Your task to perform on an android device: stop showing notifications on the lock screen Image 0: 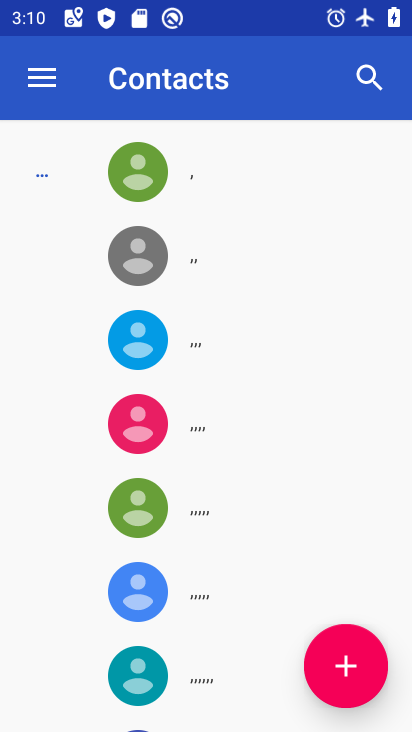
Step 0: press home button
Your task to perform on an android device: stop showing notifications on the lock screen Image 1: 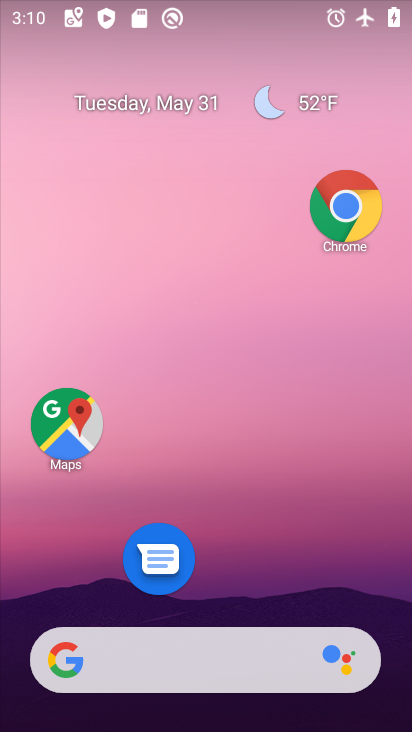
Step 1: drag from (321, 556) to (263, 139)
Your task to perform on an android device: stop showing notifications on the lock screen Image 2: 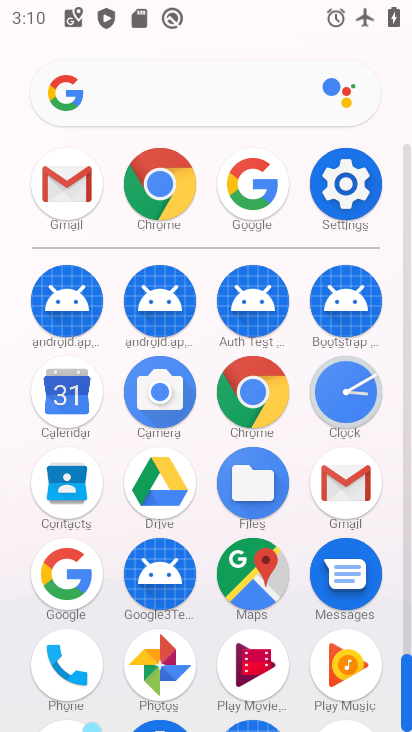
Step 2: drag from (214, 251) to (203, 91)
Your task to perform on an android device: stop showing notifications on the lock screen Image 3: 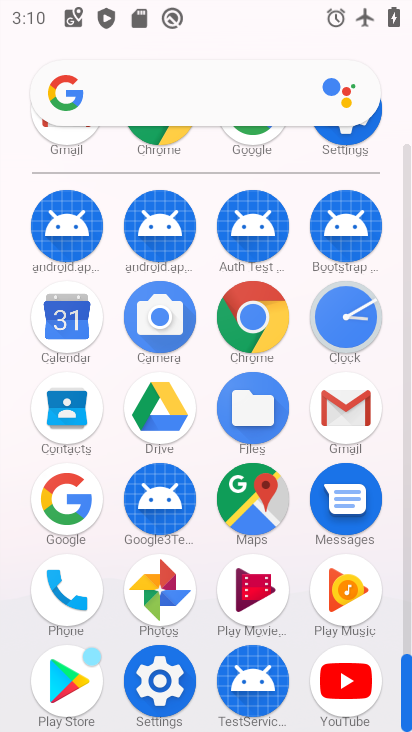
Step 3: click (151, 691)
Your task to perform on an android device: stop showing notifications on the lock screen Image 4: 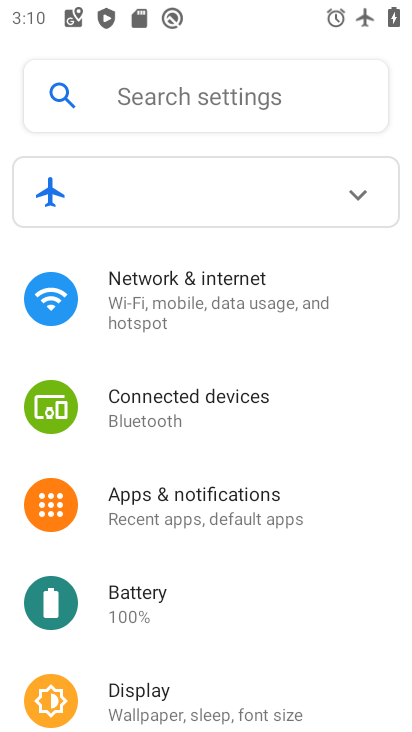
Step 4: drag from (217, 571) to (245, 332)
Your task to perform on an android device: stop showing notifications on the lock screen Image 5: 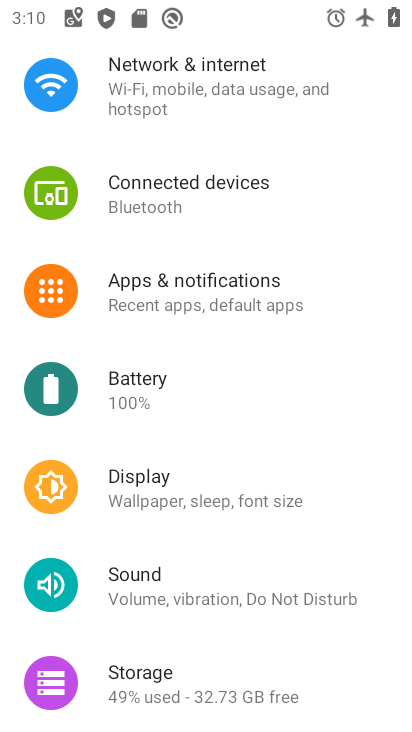
Step 5: drag from (203, 533) to (206, 103)
Your task to perform on an android device: stop showing notifications on the lock screen Image 6: 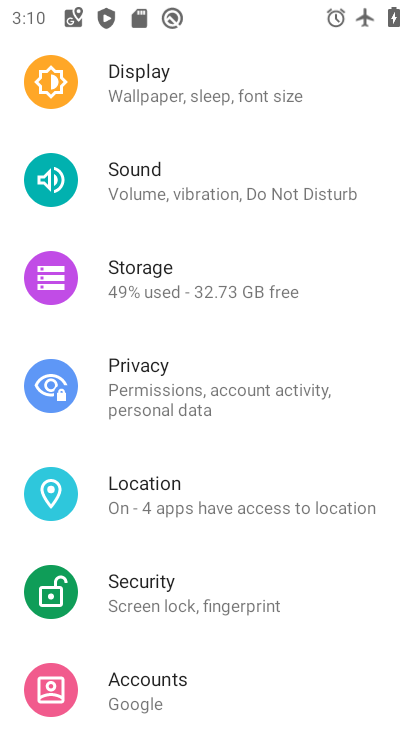
Step 6: drag from (260, 191) to (200, 624)
Your task to perform on an android device: stop showing notifications on the lock screen Image 7: 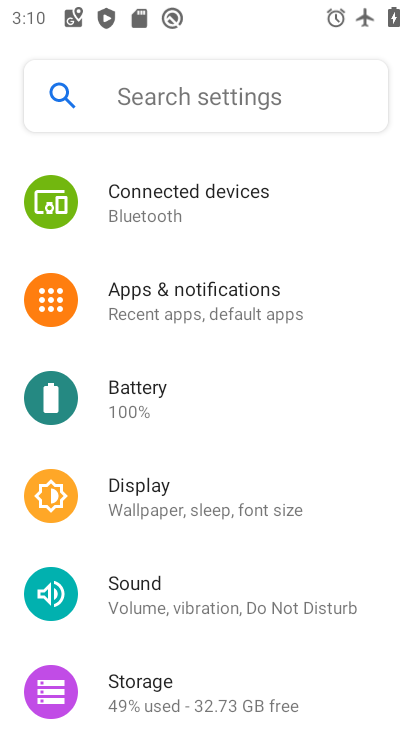
Step 7: click (239, 304)
Your task to perform on an android device: stop showing notifications on the lock screen Image 8: 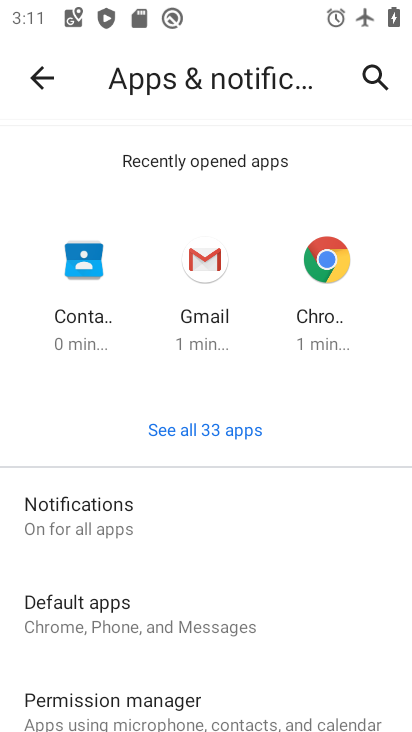
Step 8: click (174, 501)
Your task to perform on an android device: stop showing notifications on the lock screen Image 9: 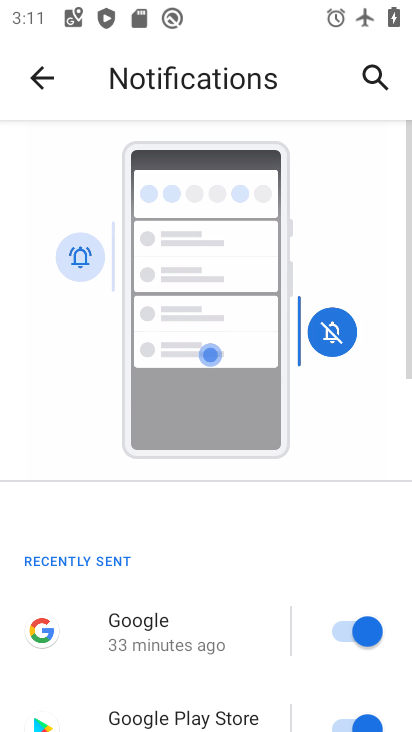
Step 9: drag from (179, 598) to (206, 60)
Your task to perform on an android device: stop showing notifications on the lock screen Image 10: 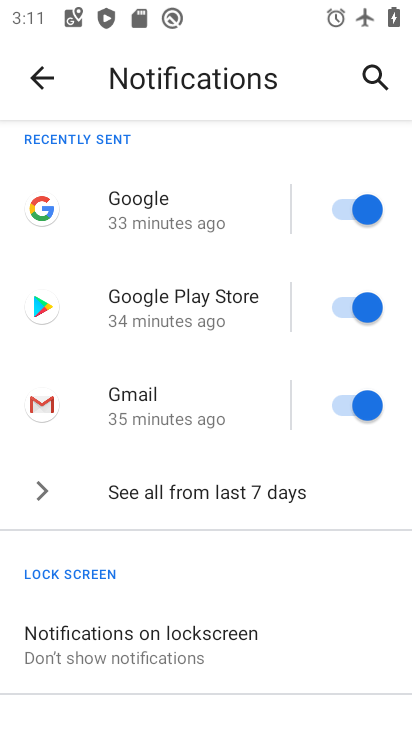
Step 10: click (159, 646)
Your task to perform on an android device: stop showing notifications on the lock screen Image 11: 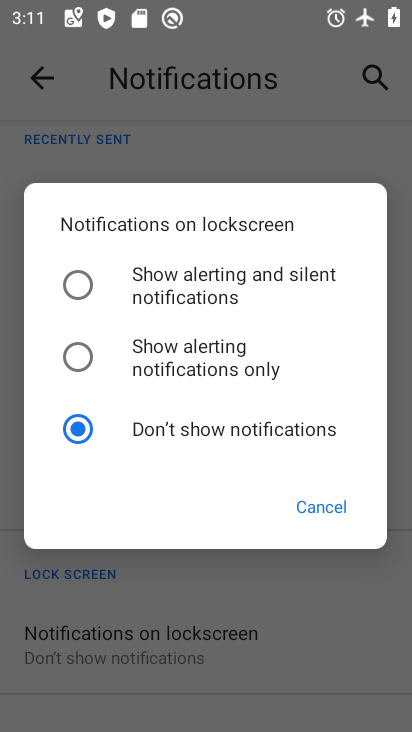
Step 11: task complete